Your task to perform on an android device: Open Google Chrome and open the bookmarks view Image 0: 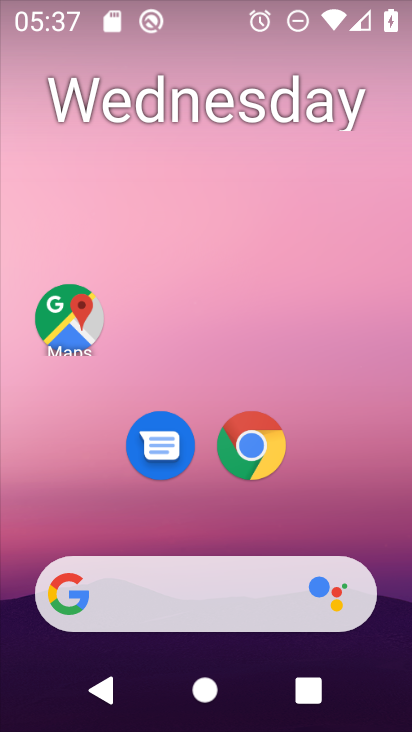
Step 0: click (252, 448)
Your task to perform on an android device: Open Google Chrome and open the bookmarks view Image 1: 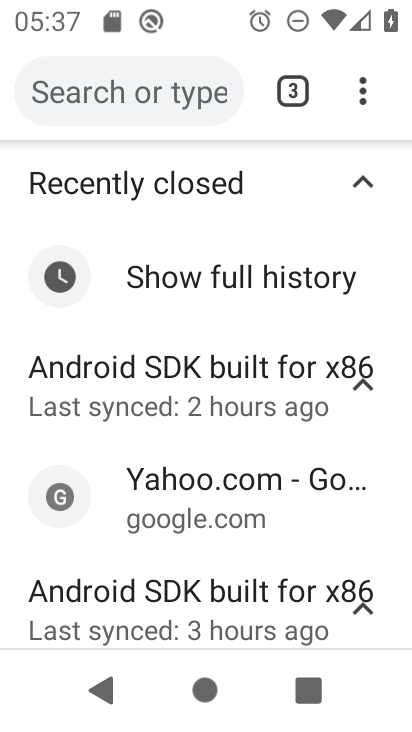
Step 1: click (376, 90)
Your task to perform on an android device: Open Google Chrome and open the bookmarks view Image 2: 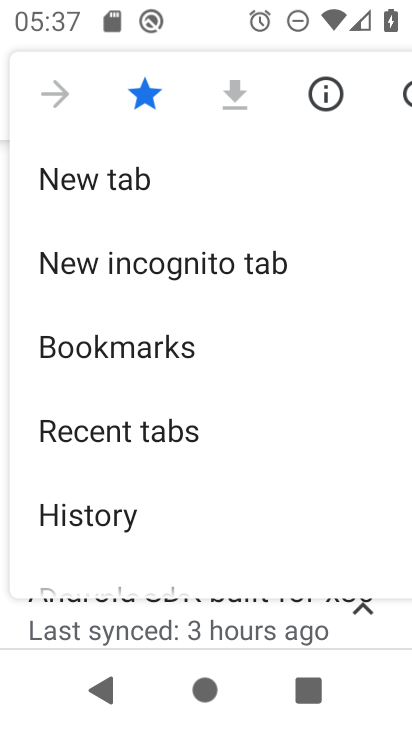
Step 2: click (98, 341)
Your task to perform on an android device: Open Google Chrome and open the bookmarks view Image 3: 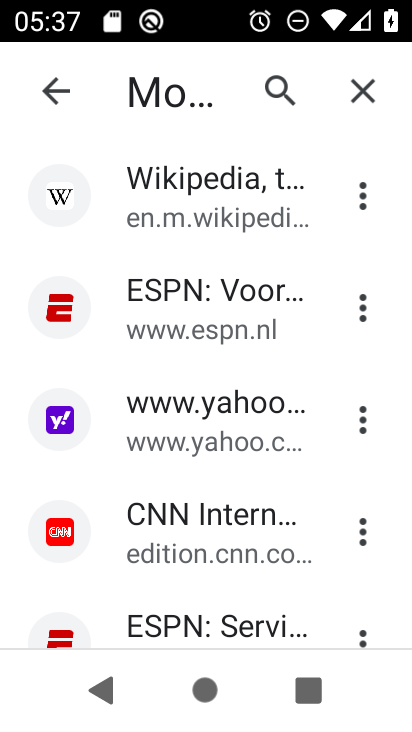
Step 3: task complete